Your task to perform on an android device: change text size in settings app Image 0: 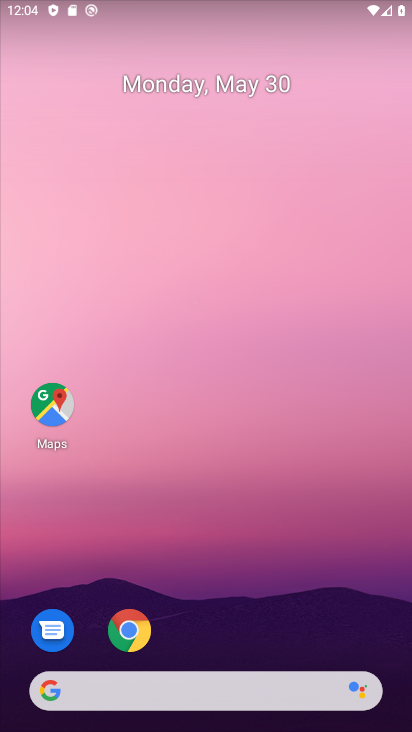
Step 0: drag from (100, 331) to (168, 61)
Your task to perform on an android device: change text size in settings app Image 1: 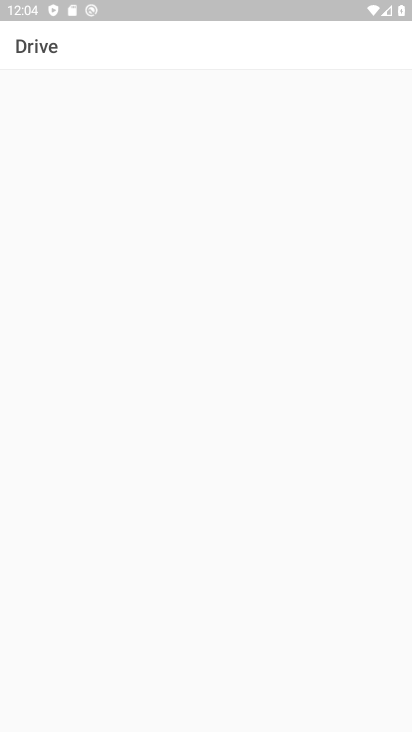
Step 1: press home button
Your task to perform on an android device: change text size in settings app Image 2: 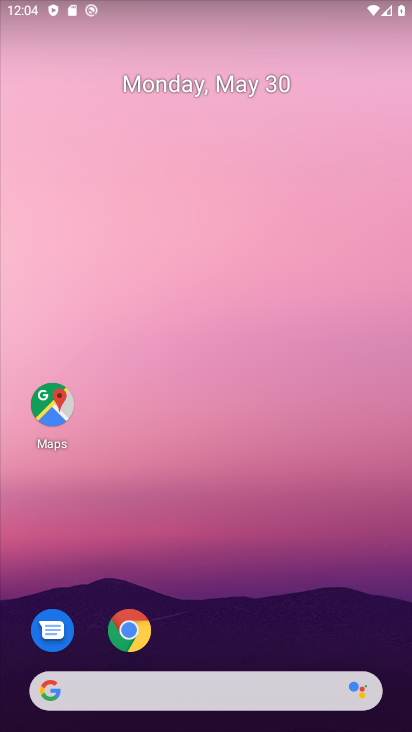
Step 2: drag from (101, 726) to (191, 107)
Your task to perform on an android device: change text size in settings app Image 3: 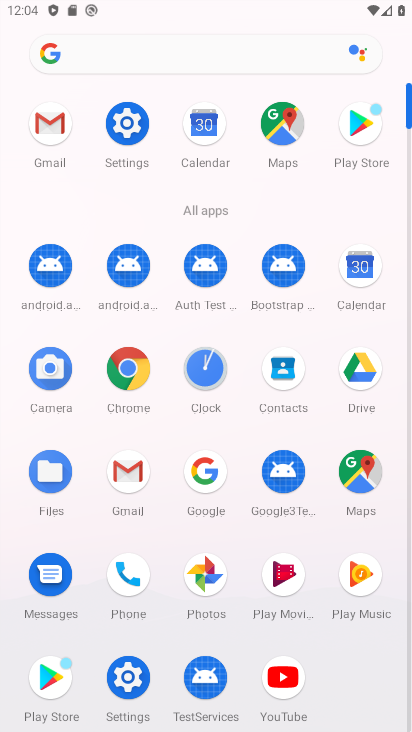
Step 3: click (131, 687)
Your task to perform on an android device: change text size in settings app Image 4: 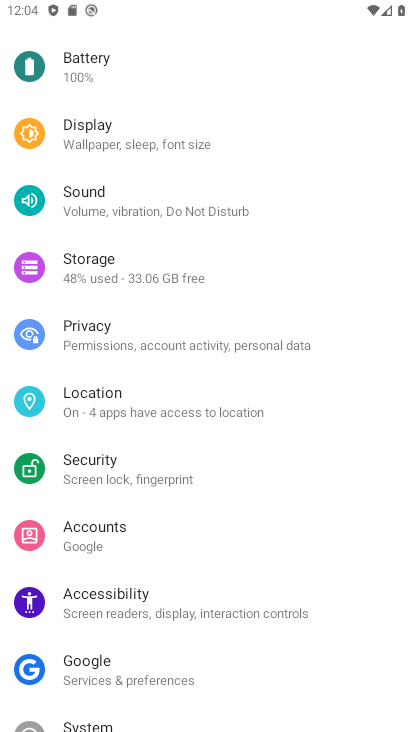
Step 4: click (211, 142)
Your task to perform on an android device: change text size in settings app Image 5: 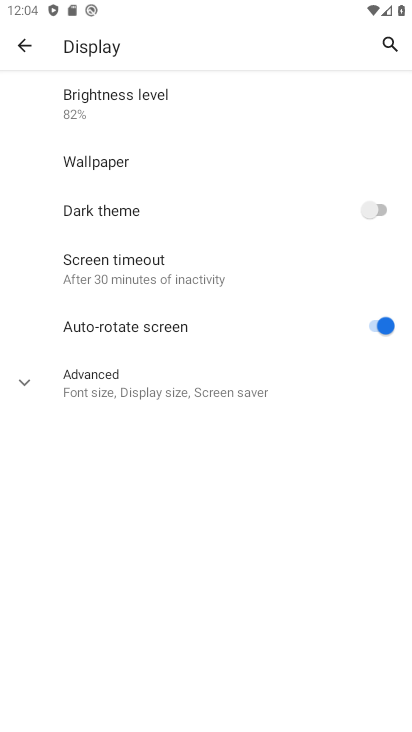
Step 5: click (119, 387)
Your task to perform on an android device: change text size in settings app Image 6: 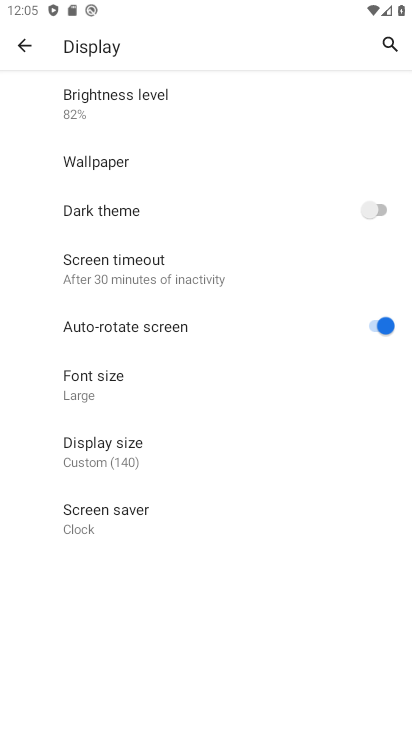
Step 6: click (96, 393)
Your task to perform on an android device: change text size in settings app Image 7: 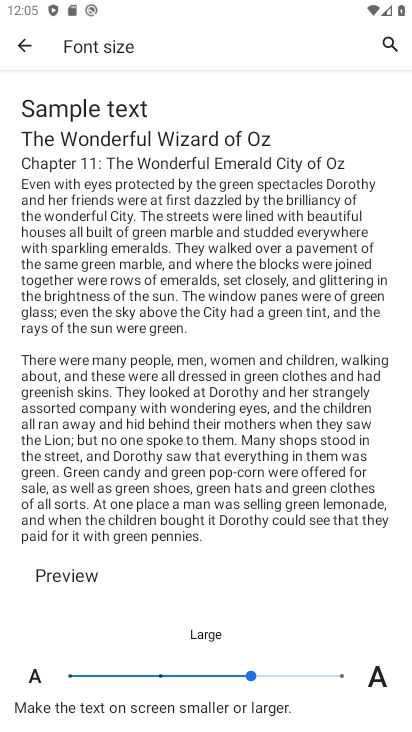
Step 7: click (158, 676)
Your task to perform on an android device: change text size in settings app Image 8: 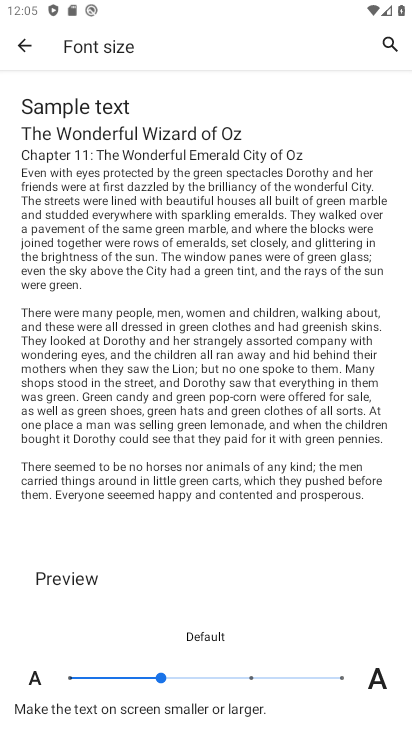
Step 8: task complete